Your task to perform on an android device: Open eBay Image 0: 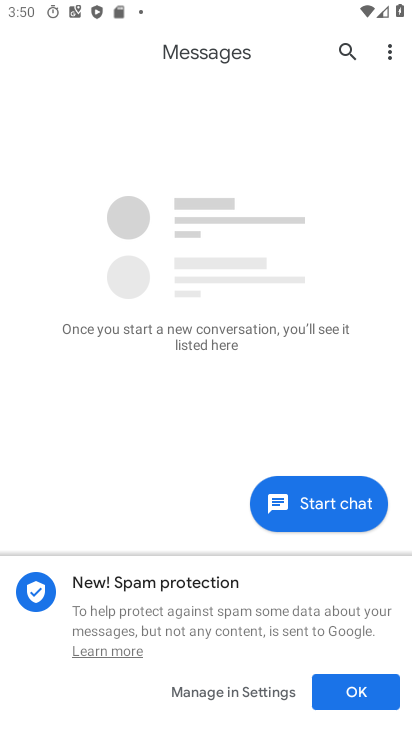
Step 0: press home button
Your task to perform on an android device: Open eBay Image 1: 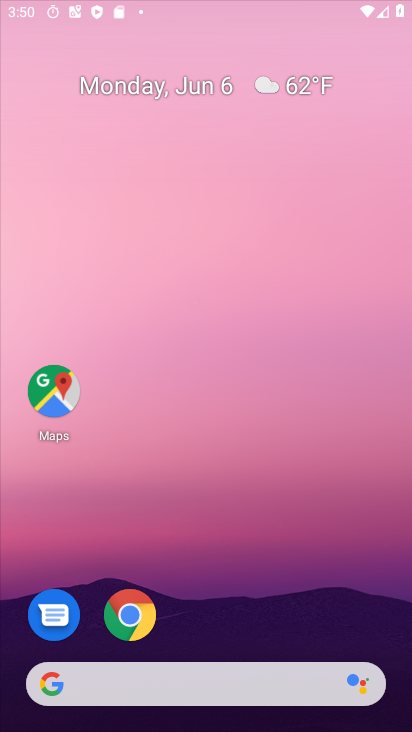
Step 1: drag from (300, 659) to (312, 60)
Your task to perform on an android device: Open eBay Image 2: 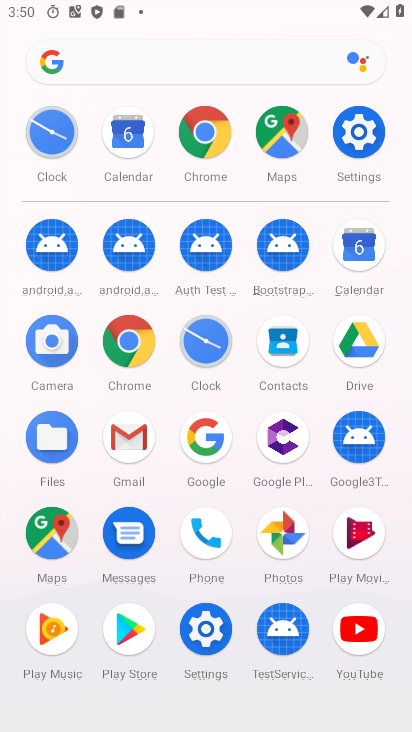
Step 2: click (126, 332)
Your task to perform on an android device: Open eBay Image 3: 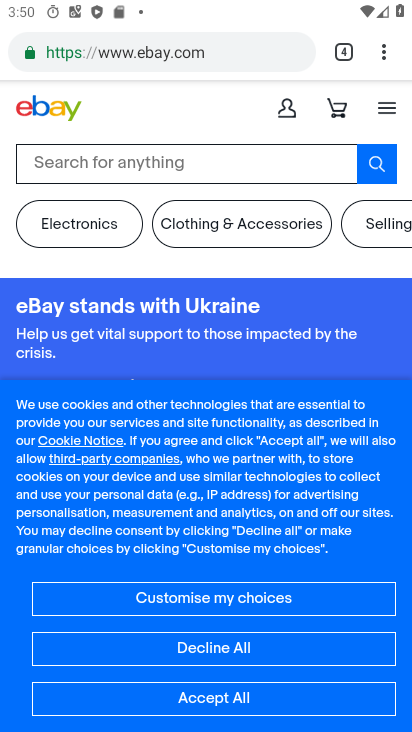
Step 3: click (386, 42)
Your task to perform on an android device: Open eBay Image 4: 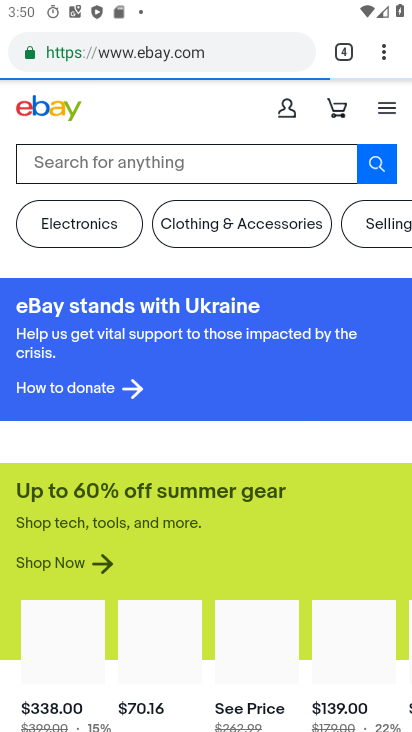
Step 4: task complete